Your task to perform on an android device: change alarm snooze length Image 0: 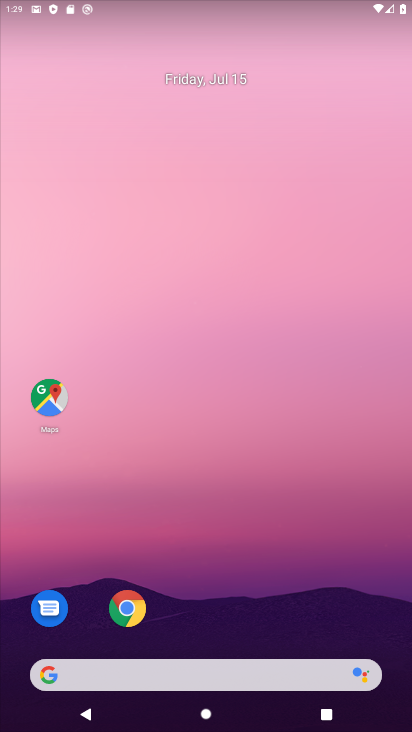
Step 0: drag from (205, 190) to (201, 136)
Your task to perform on an android device: change alarm snooze length Image 1: 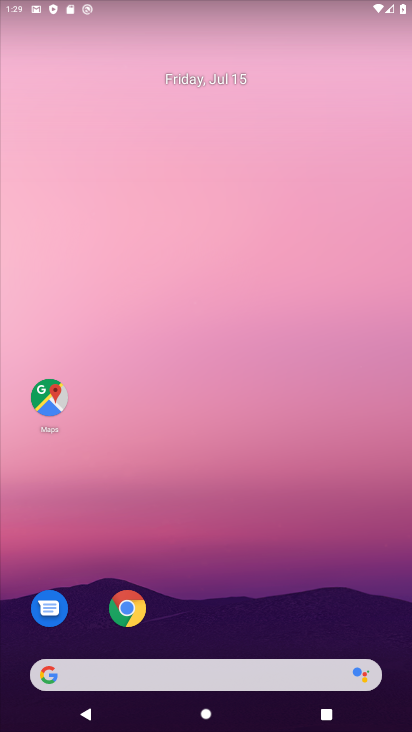
Step 1: drag from (208, 678) to (175, 134)
Your task to perform on an android device: change alarm snooze length Image 2: 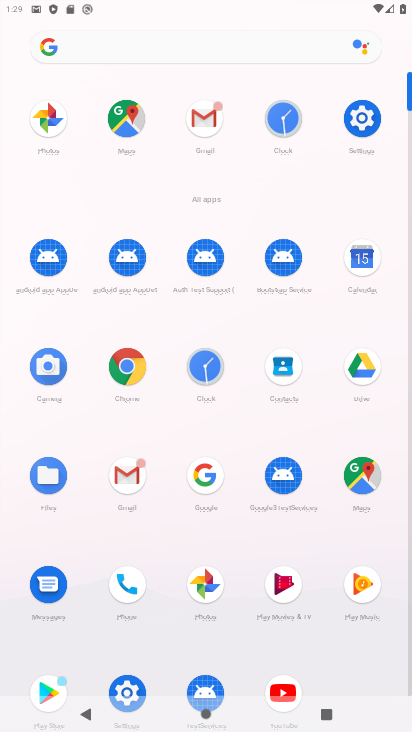
Step 2: click (199, 361)
Your task to perform on an android device: change alarm snooze length Image 3: 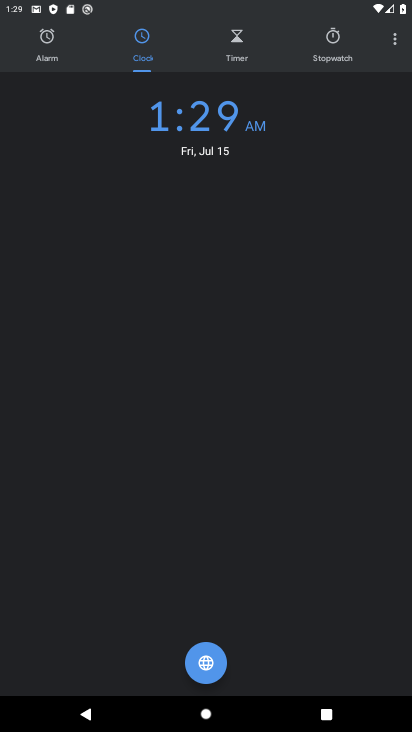
Step 3: click (398, 43)
Your task to perform on an android device: change alarm snooze length Image 4: 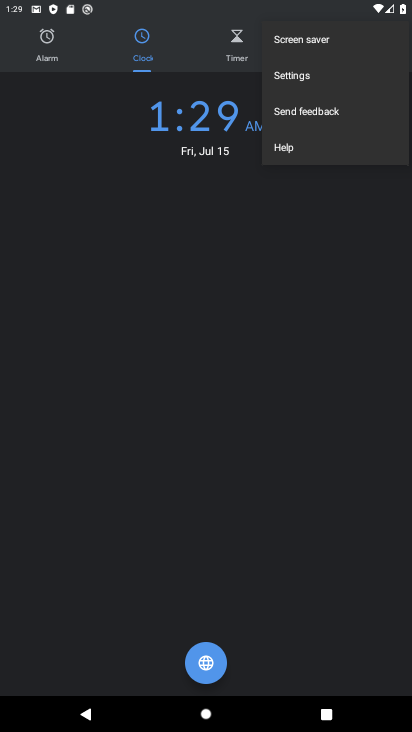
Step 4: click (310, 76)
Your task to perform on an android device: change alarm snooze length Image 5: 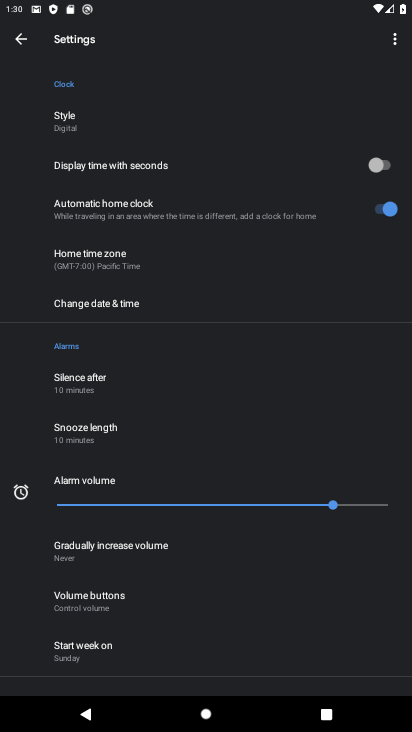
Step 5: click (115, 424)
Your task to perform on an android device: change alarm snooze length Image 6: 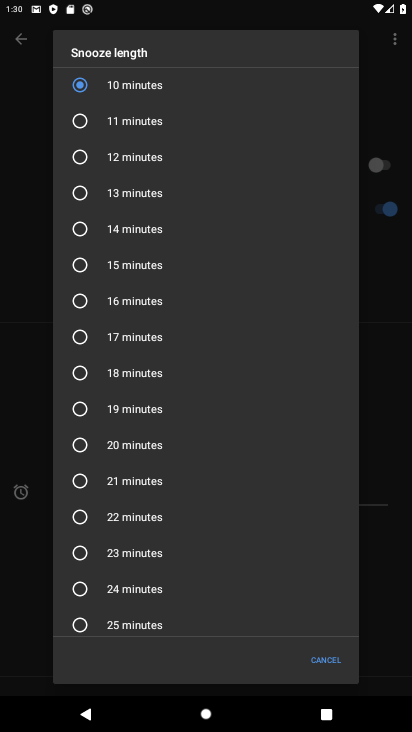
Step 6: click (116, 565)
Your task to perform on an android device: change alarm snooze length Image 7: 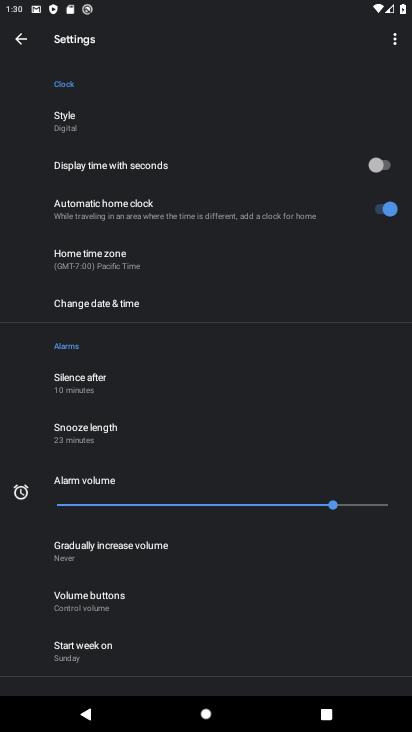
Step 7: task complete